Your task to perform on an android device: Check the weather Image 0: 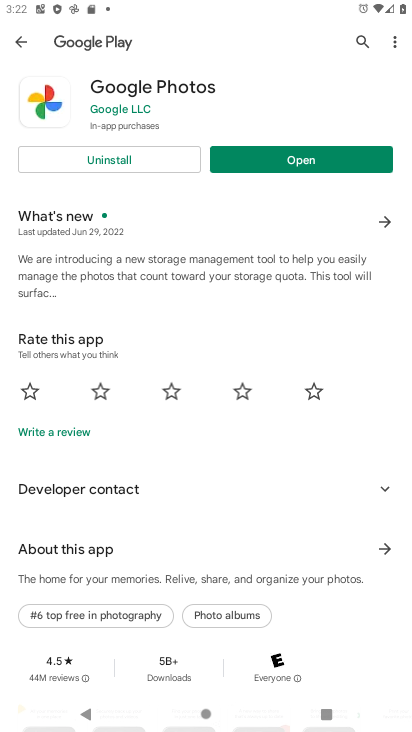
Step 0: press home button
Your task to perform on an android device: Check the weather Image 1: 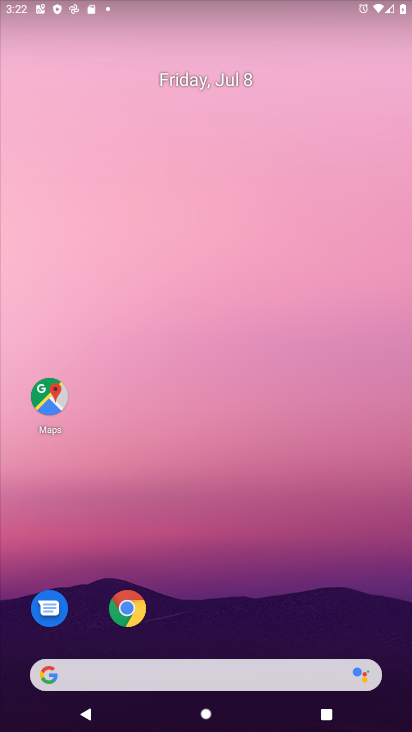
Step 1: click (361, 2)
Your task to perform on an android device: Check the weather Image 2: 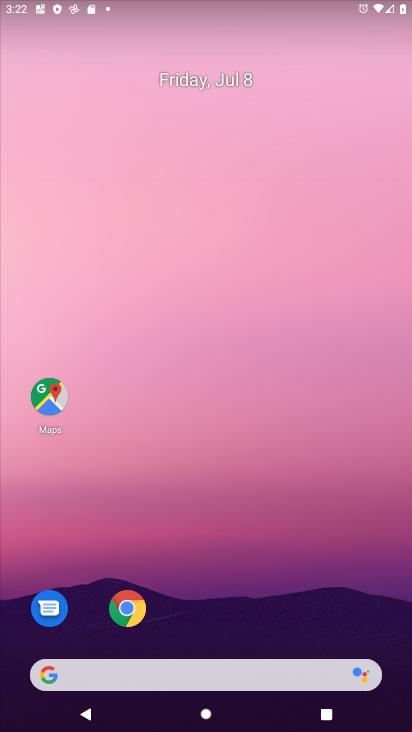
Step 2: drag from (261, 586) to (273, 0)
Your task to perform on an android device: Check the weather Image 3: 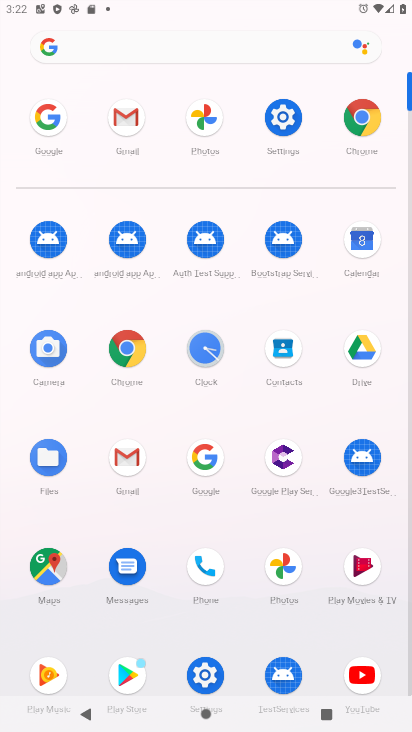
Step 3: click (128, 348)
Your task to perform on an android device: Check the weather Image 4: 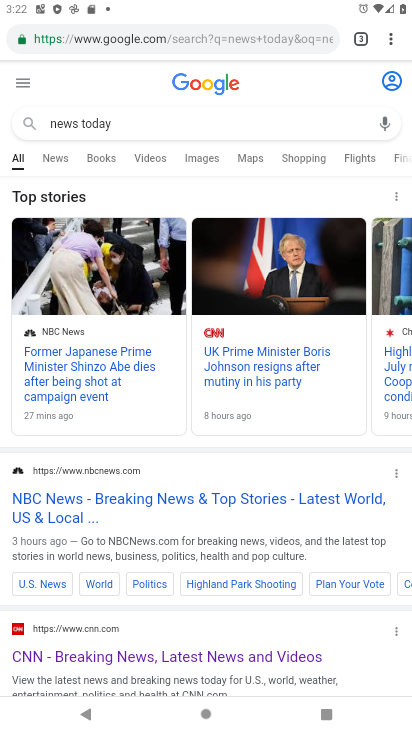
Step 4: press home button
Your task to perform on an android device: Check the weather Image 5: 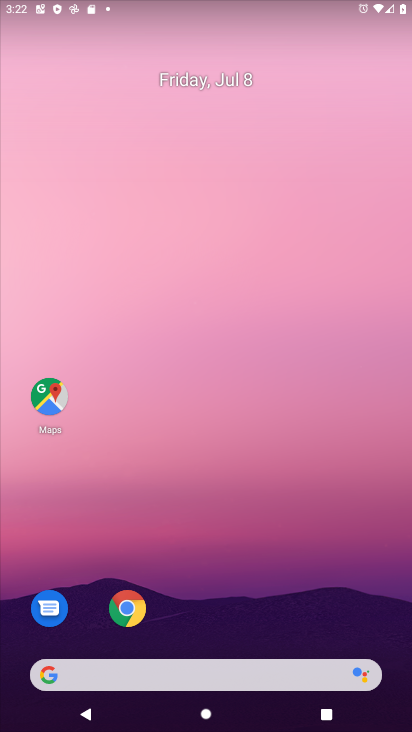
Step 5: drag from (251, 676) to (325, 98)
Your task to perform on an android device: Check the weather Image 6: 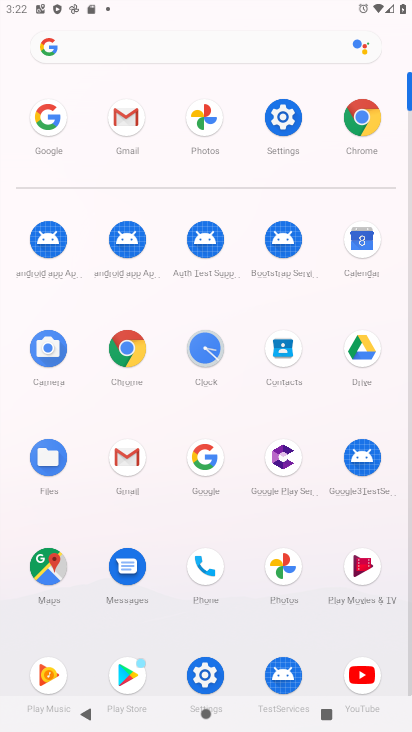
Step 6: click (209, 460)
Your task to perform on an android device: Check the weather Image 7: 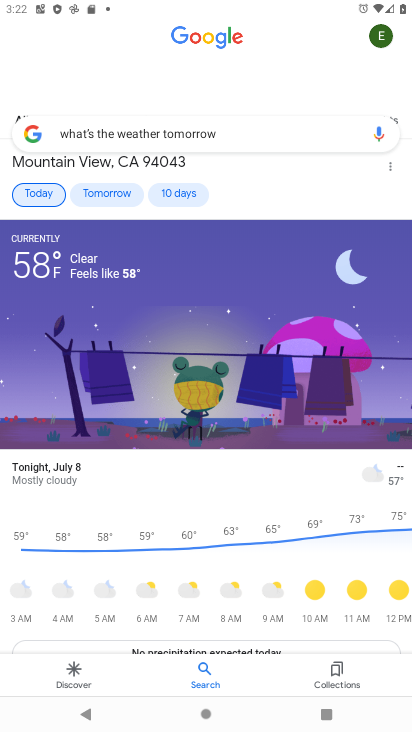
Step 7: click (53, 197)
Your task to perform on an android device: Check the weather Image 8: 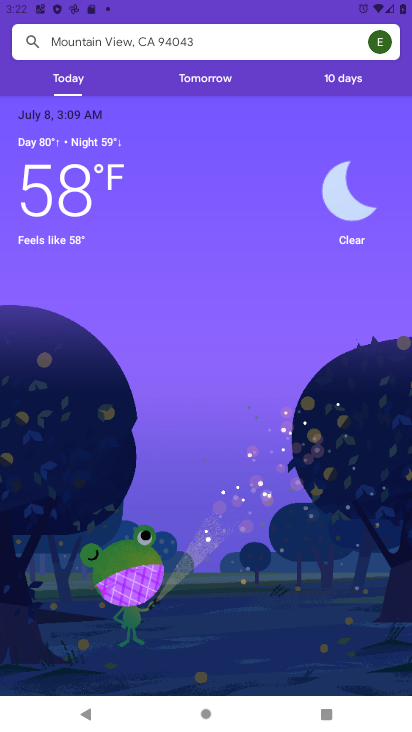
Step 8: task complete